Your task to perform on an android device: open the mobile data screen to see how much data has been used Image 0: 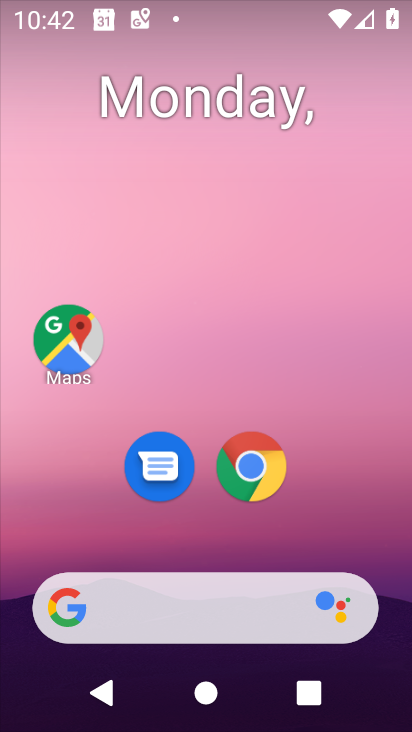
Step 0: drag from (380, 660) to (236, 0)
Your task to perform on an android device: open the mobile data screen to see how much data has been used Image 1: 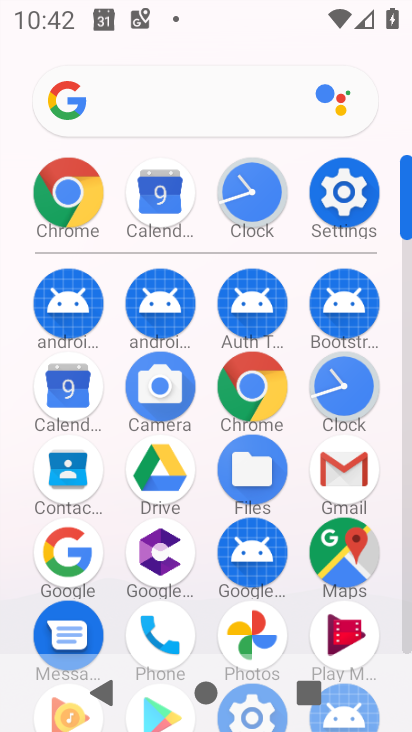
Step 1: click (332, 195)
Your task to perform on an android device: open the mobile data screen to see how much data has been used Image 2: 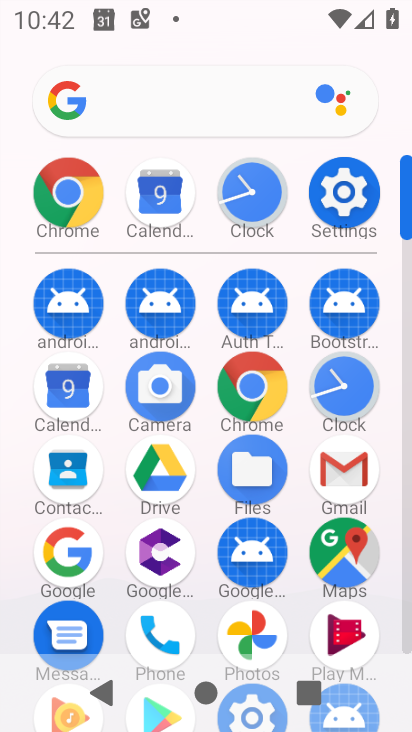
Step 2: click (332, 195)
Your task to perform on an android device: open the mobile data screen to see how much data has been used Image 3: 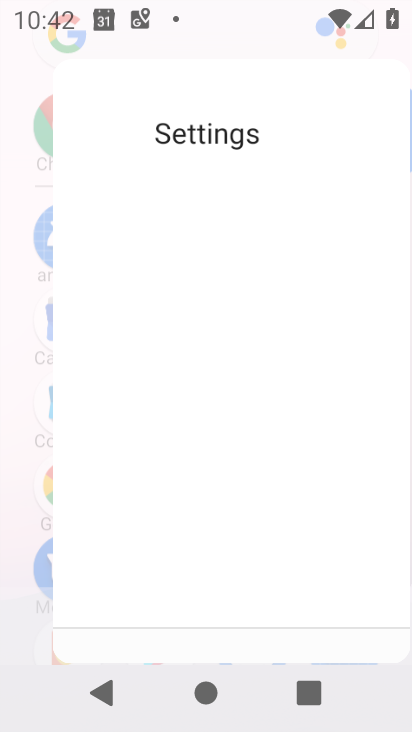
Step 3: click (337, 195)
Your task to perform on an android device: open the mobile data screen to see how much data has been used Image 4: 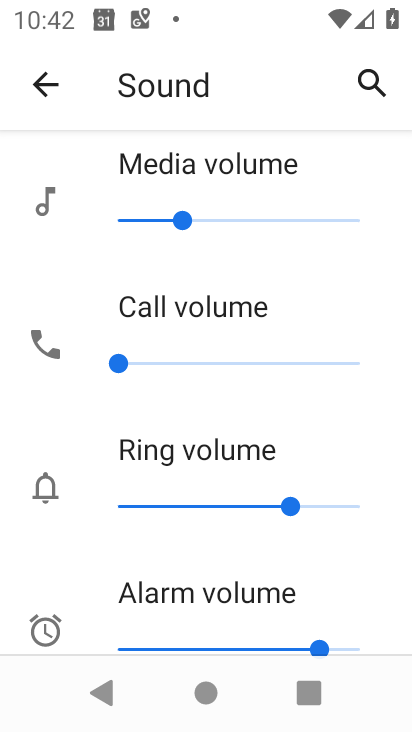
Step 4: click (43, 79)
Your task to perform on an android device: open the mobile data screen to see how much data has been used Image 5: 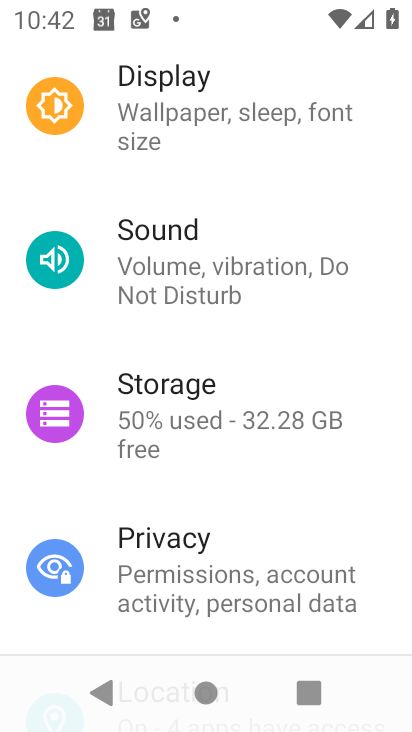
Step 5: drag from (189, 167) to (266, 490)
Your task to perform on an android device: open the mobile data screen to see how much data has been used Image 6: 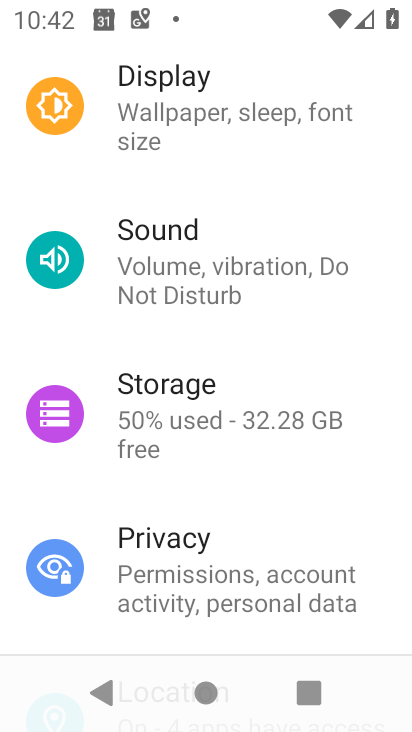
Step 6: drag from (263, 268) to (303, 536)
Your task to perform on an android device: open the mobile data screen to see how much data has been used Image 7: 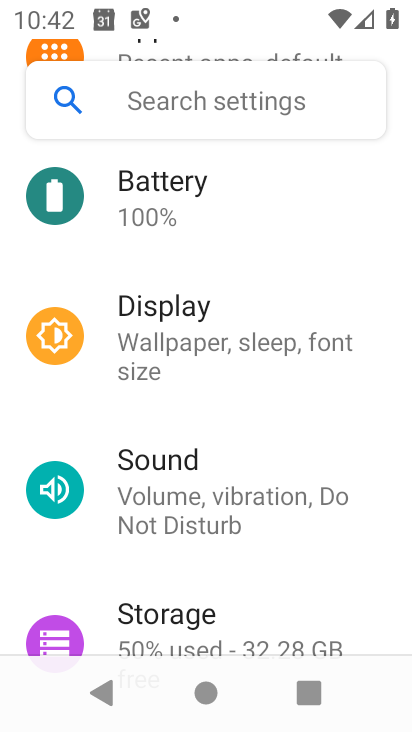
Step 7: drag from (177, 173) to (297, 624)
Your task to perform on an android device: open the mobile data screen to see how much data has been used Image 8: 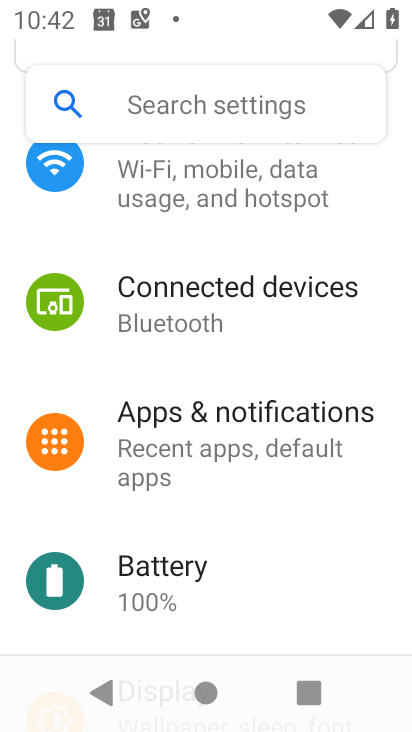
Step 8: drag from (246, 265) to (280, 532)
Your task to perform on an android device: open the mobile data screen to see how much data has been used Image 9: 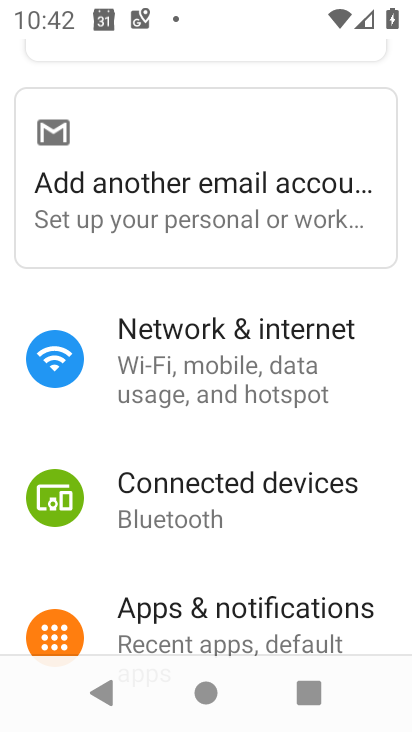
Step 9: click (169, 230)
Your task to perform on an android device: open the mobile data screen to see how much data has been used Image 10: 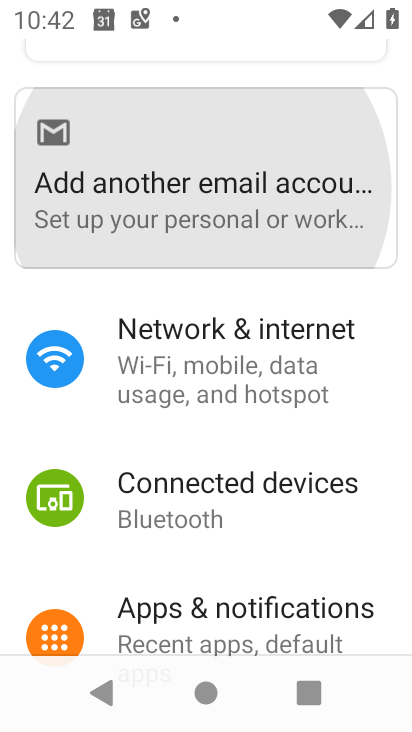
Step 10: click (201, 357)
Your task to perform on an android device: open the mobile data screen to see how much data has been used Image 11: 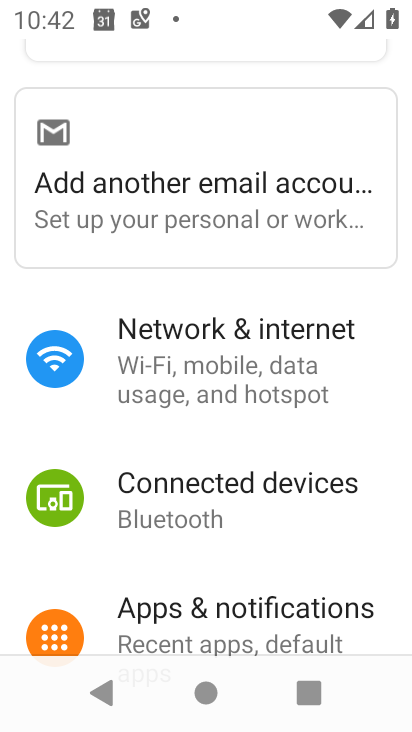
Step 11: drag from (201, 253) to (256, 519)
Your task to perform on an android device: open the mobile data screen to see how much data has been used Image 12: 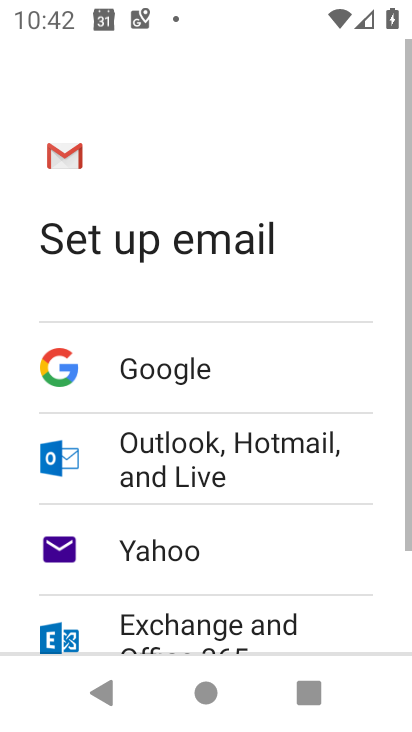
Step 12: press back button
Your task to perform on an android device: open the mobile data screen to see how much data has been used Image 13: 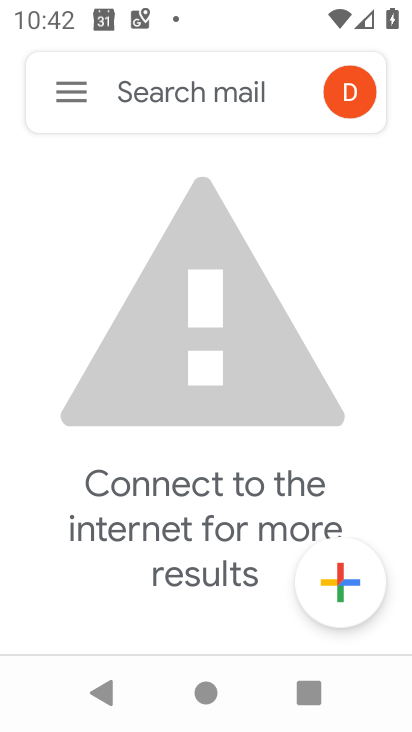
Step 13: press back button
Your task to perform on an android device: open the mobile data screen to see how much data has been used Image 14: 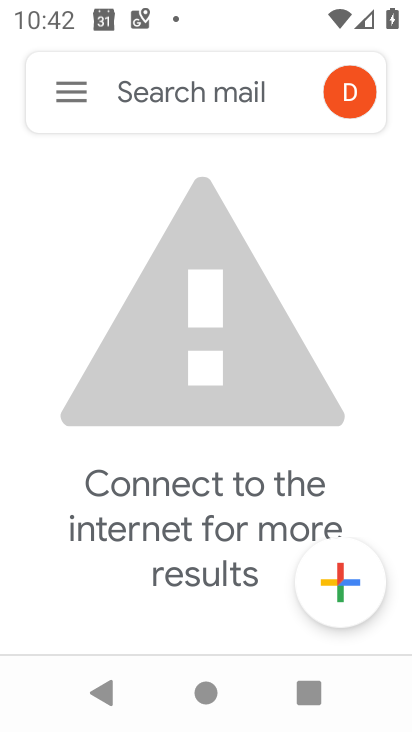
Step 14: press back button
Your task to perform on an android device: open the mobile data screen to see how much data has been used Image 15: 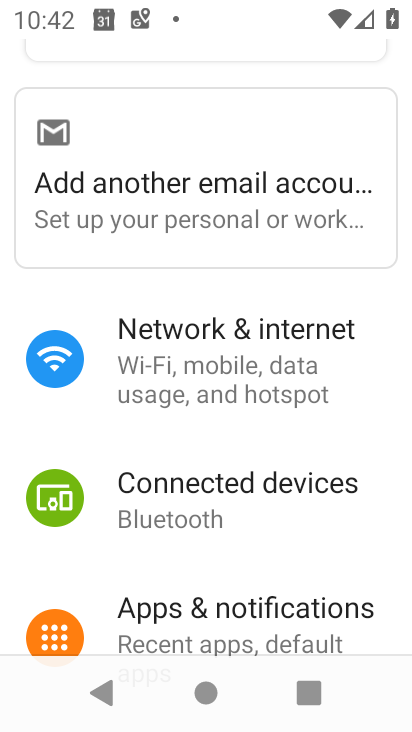
Step 15: click (205, 355)
Your task to perform on an android device: open the mobile data screen to see how much data has been used Image 16: 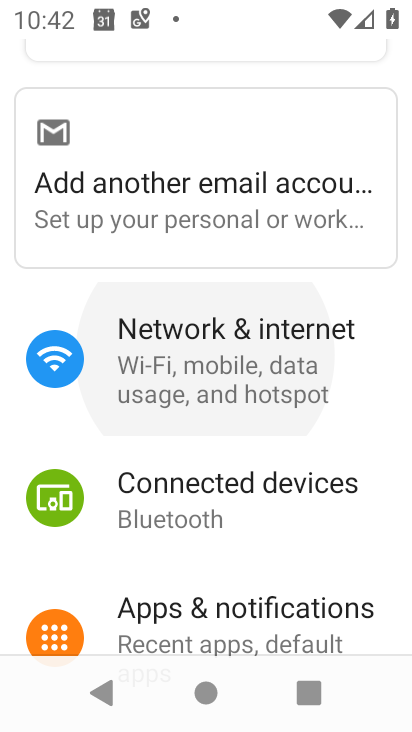
Step 16: click (208, 359)
Your task to perform on an android device: open the mobile data screen to see how much data has been used Image 17: 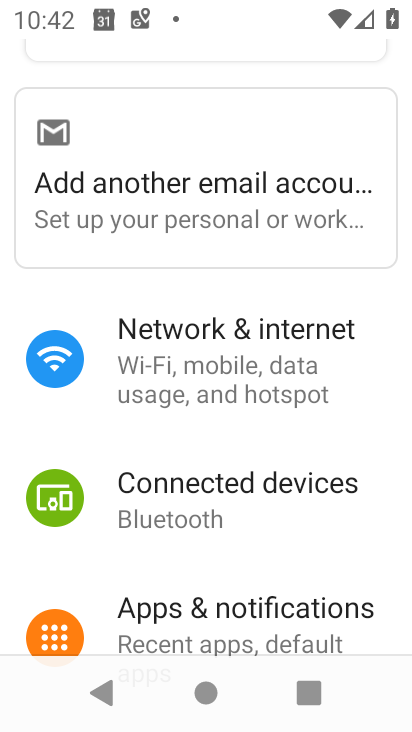
Step 17: click (208, 359)
Your task to perform on an android device: open the mobile data screen to see how much data has been used Image 18: 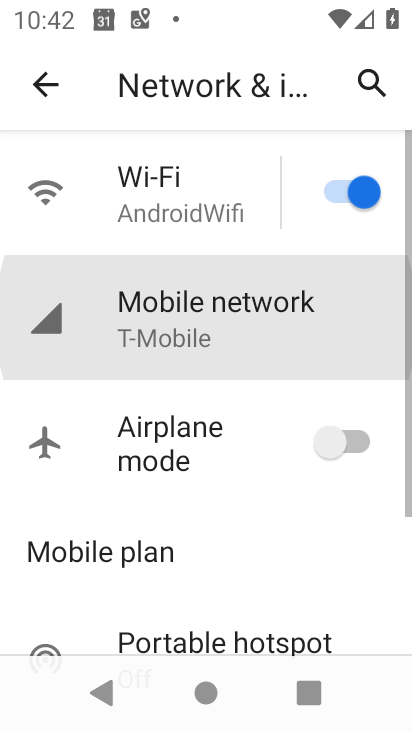
Step 18: click (208, 359)
Your task to perform on an android device: open the mobile data screen to see how much data has been used Image 19: 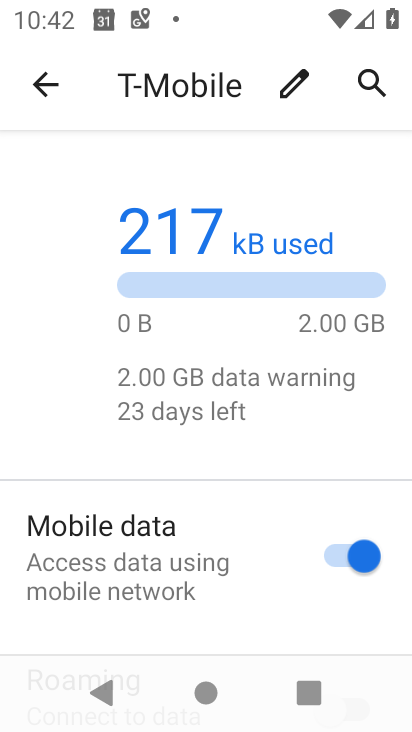
Step 19: click (52, 99)
Your task to perform on an android device: open the mobile data screen to see how much data has been used Image 20: 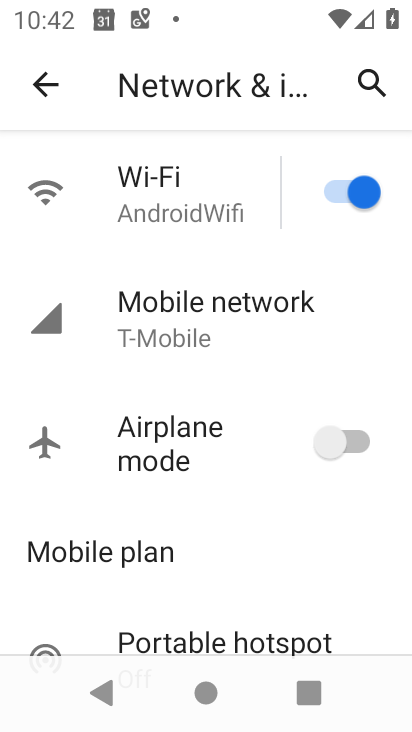
Step 20: click (34, 86)
Your task to perform on an android device: open the mobile data screen to see how much data has been used Image 21: 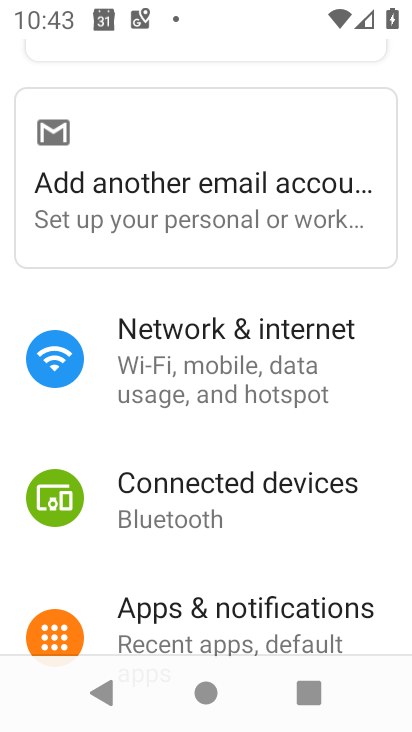
Step 21: click (240, 359)
Your task to perform on an android device: open the mobile data screen to see how much data has been used Image 22: 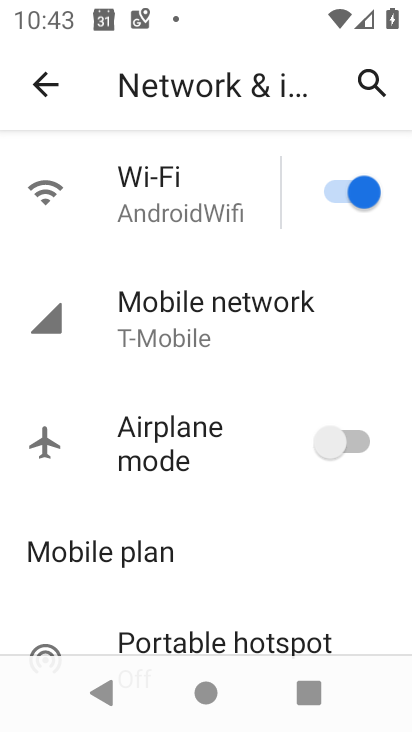
Step 22: task complete